Your task to perform on an android device: all mails in gmail Image 0: 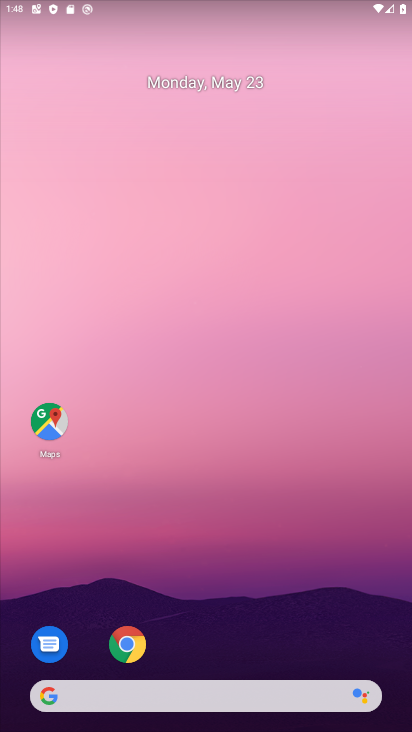
Step 0: drag from (236, 577) to (141, 23)
Your task to perform on an android device: all mails in gmail Image 1: 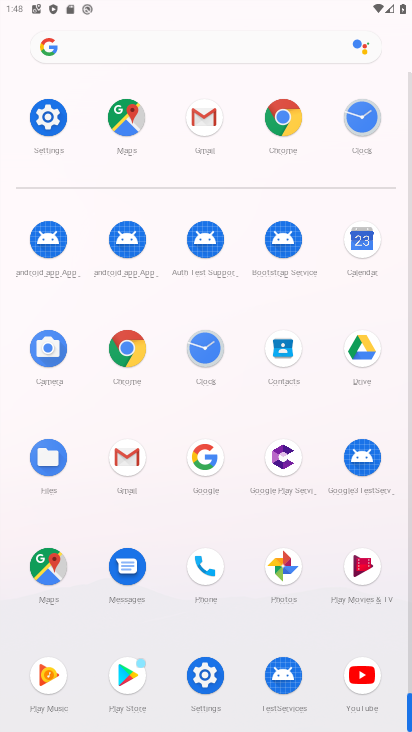
Step 1: drag from (8, 568) to (1, 185)
Your task to perform on an android device: all mails in gmail Image 2: 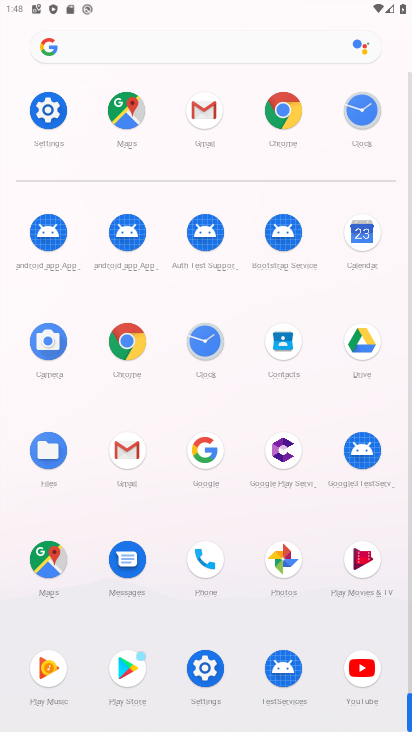
Step 2: click (123, 446)
Your task to perform on an android device: all mails in gmail Image 3: 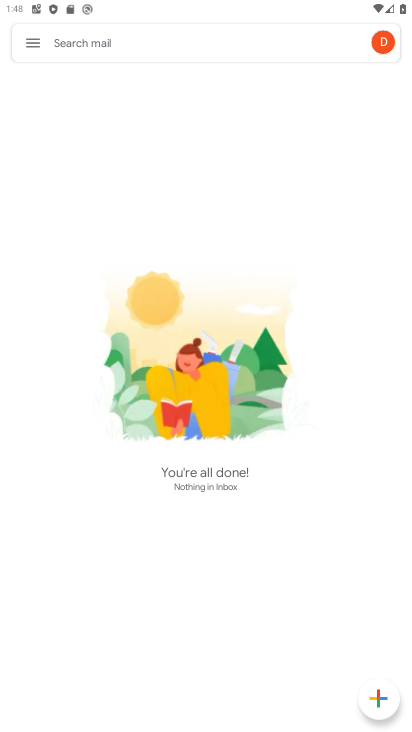
Step 3: click (34, 45)
Your task to perform on an android device: all mails in gmail Image 4: 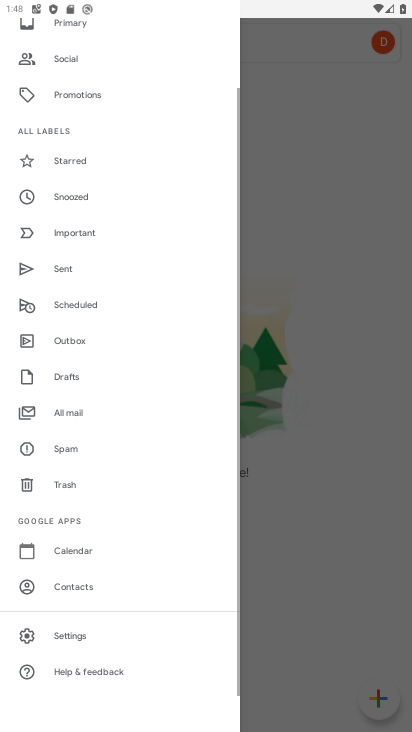
Step 4: drag from (162, 123) to (173, 599)
Your task to perform on an android device: all mails in gmail Image 5: 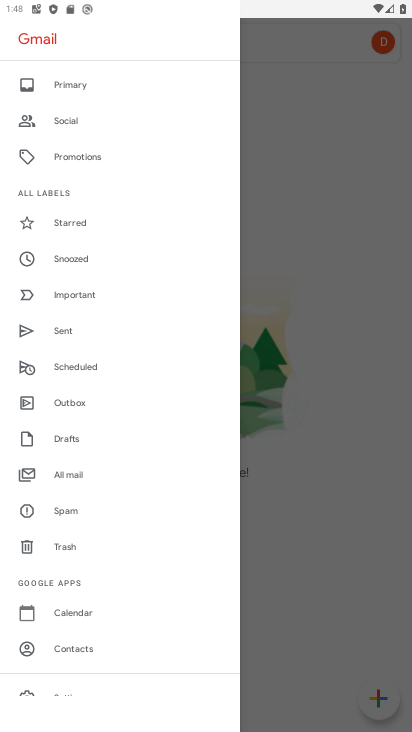
Step 5: click (87, 476)
Your task to perform on an android device: all mails in gmail Image 6: 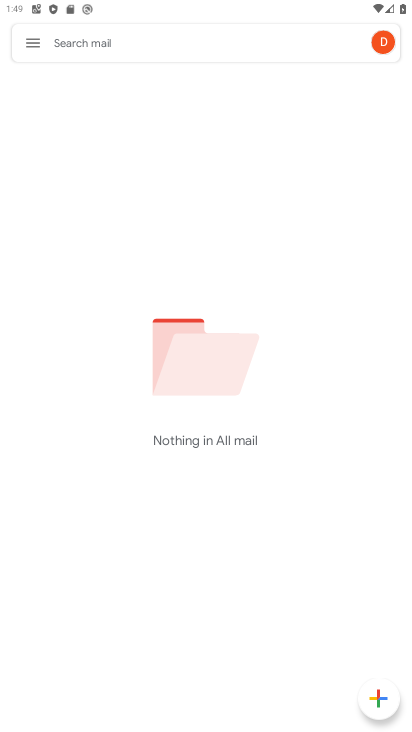
Step 6: task complete